Your task to perform on an android device: turn off airplane mode Image 0: 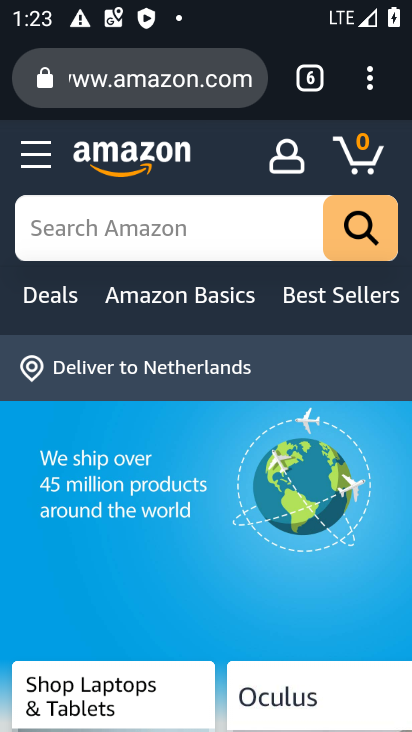
Step 0: press home button
Your task to perform on an android device: turn off airplane mode Image 1: 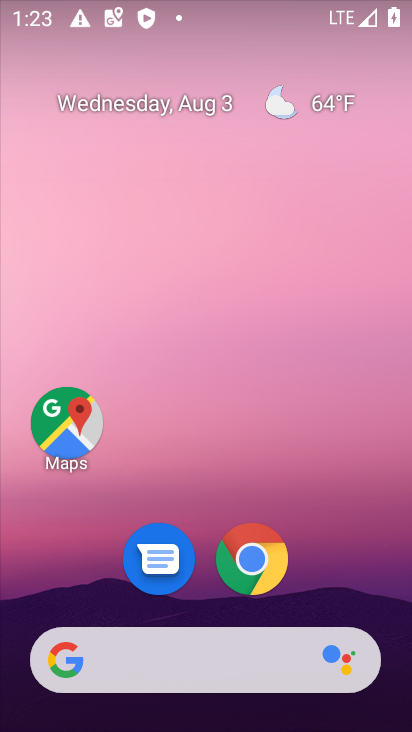
Step 1: drag from (208, 589) to (206, 152)
Your task to perform on an android device: turn off airplane mode Image 2: 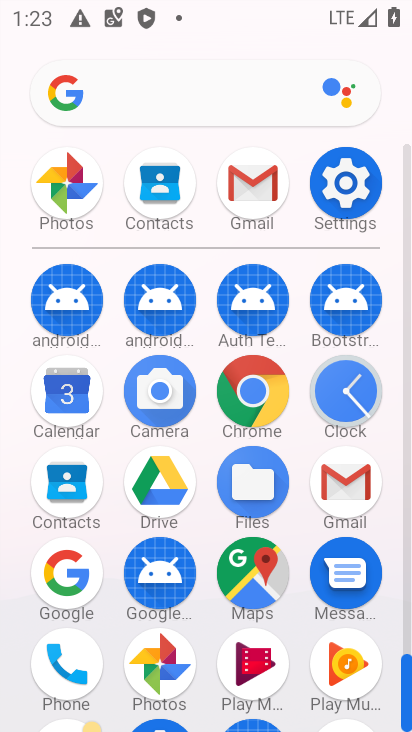
Step 2: click (349, 181)
Your task to perform on an android device: turn off airplane mode Image 3: 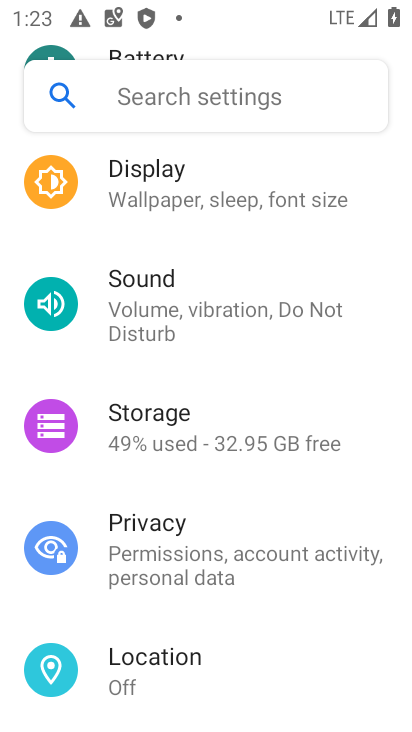
Step 3: drag from (195, 188) to (224, 578)
Your task to perform on an android device: turn off airplane mode Image 4: 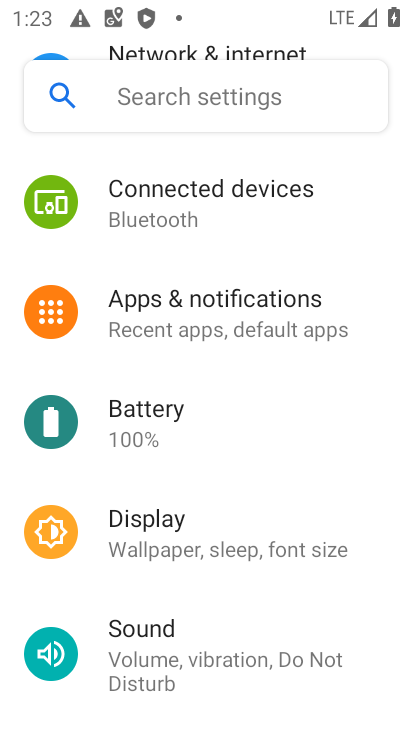
Step 4: drag from (233, 176) to (266, 569)
Your task to perform on an android device: turn off airplane mode Image 5: 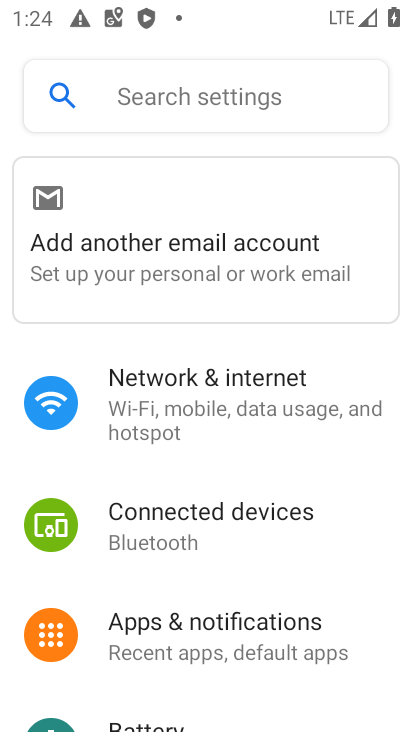
Step 5: click (215, 390)
Your task to perform on an android device: turn off airplane mode Image 6: 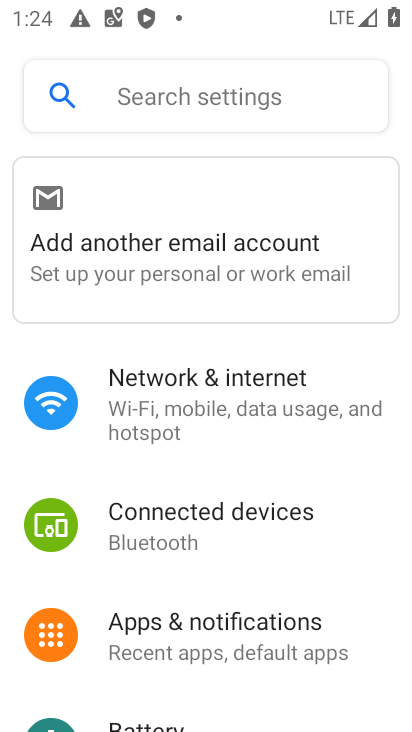
Step 6: click (215, 390)
Your task to perform on an android device: turn off airplane mode Image 7: 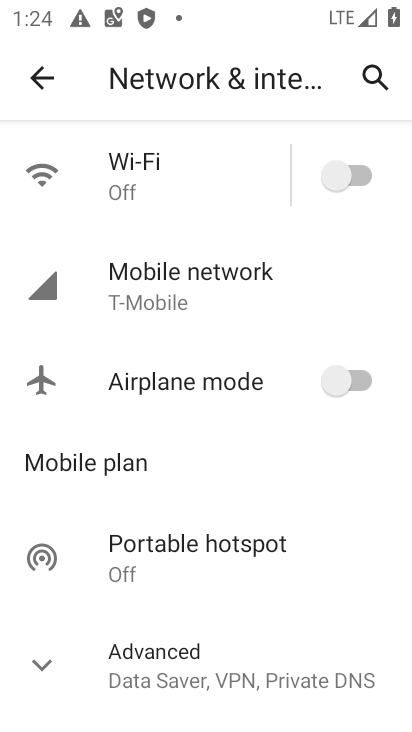
Step 7: task complete